Your task to perform on an android device: Turn off the flashlight Image 0: 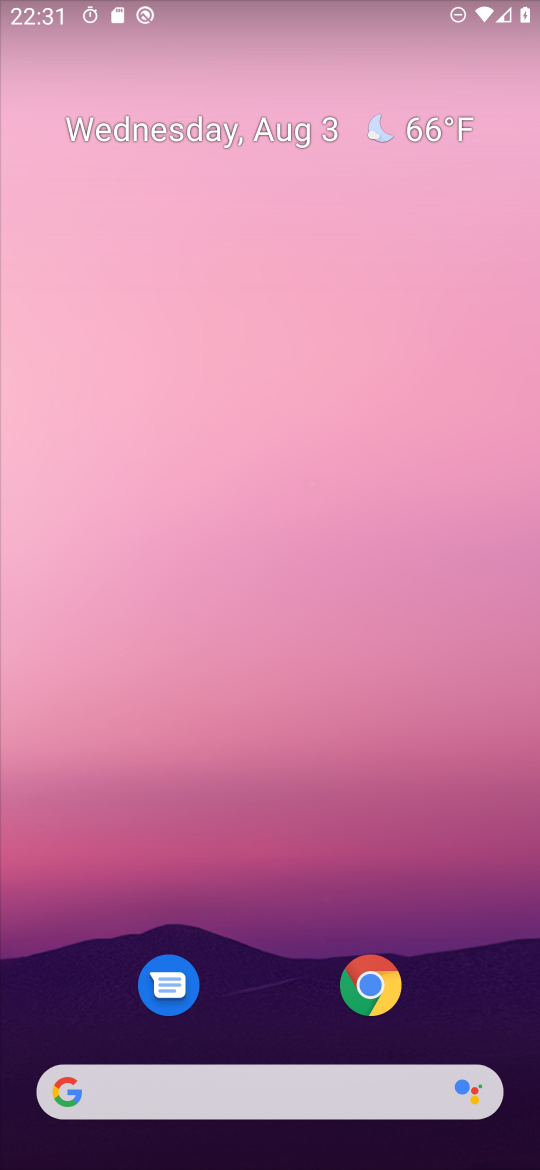
Step 0: drag from (286, 987) to (222, 364)
Your task to perform on an android device: Turn off the flashlight Image 1: 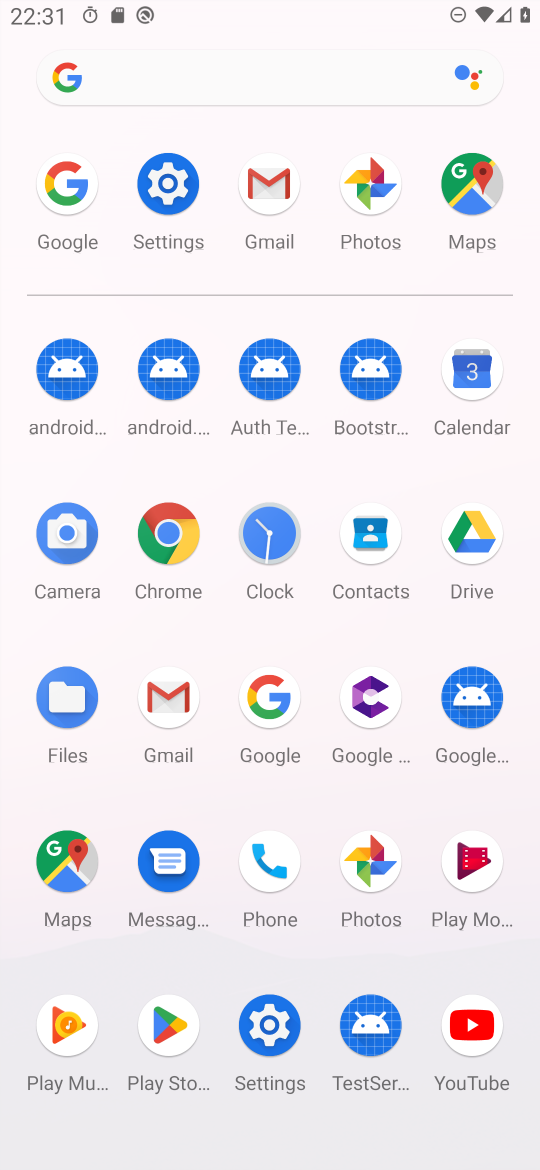
Step 1: click (165, 198)
Your task to perform on an android device: Turn off the flashlight Image 2: 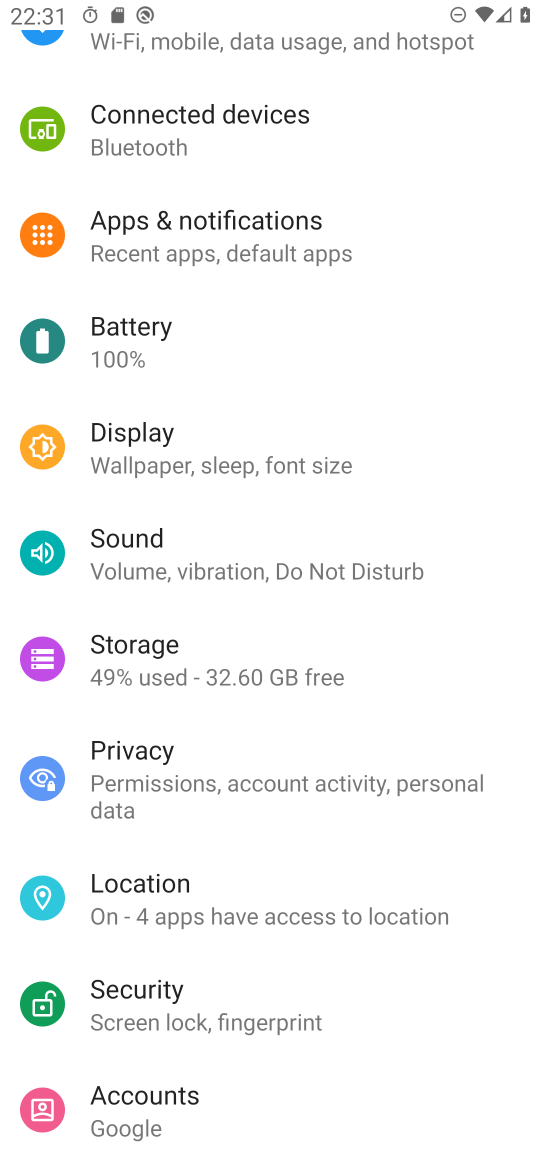
Step 2: task complete